Your task to perform on an android device: Go to Android settings Image 0: 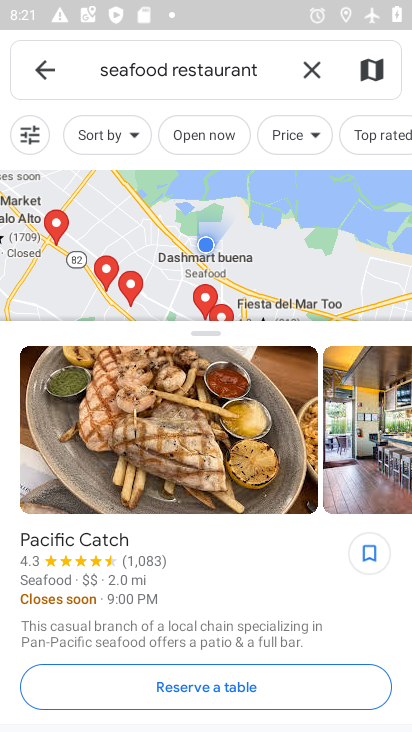
Step 0: press home button
Your task to perform on an android device: Go to Android settings Image 1: 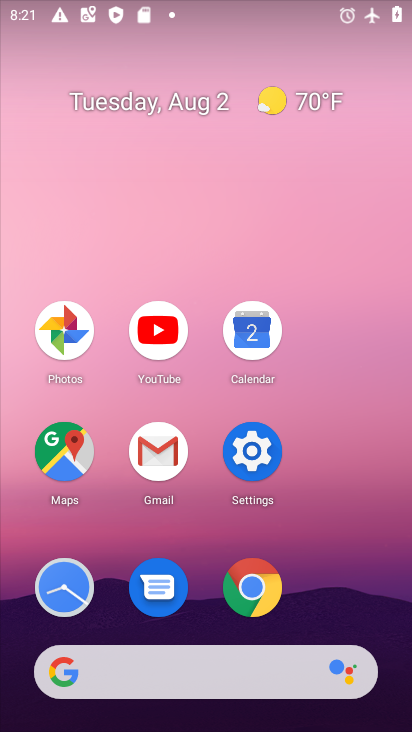
Step 1: click (254, 452)
Your task to perform on an android device: Go to Android settings Image 2: 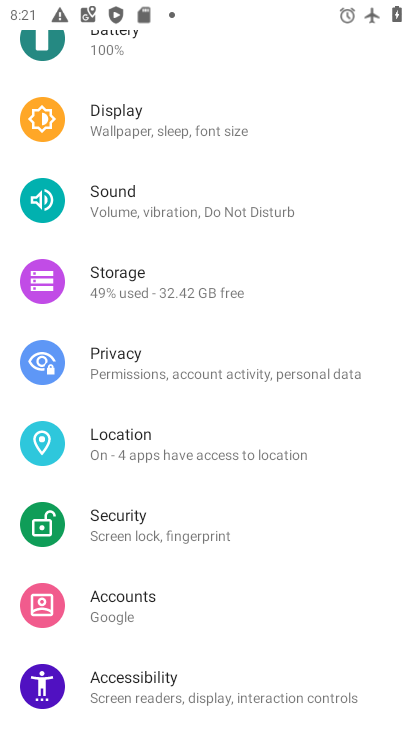
Step 2: drag from (227, 637) to (209, 44)
Your task to perform on an android device: Go to Android settings Image 3: 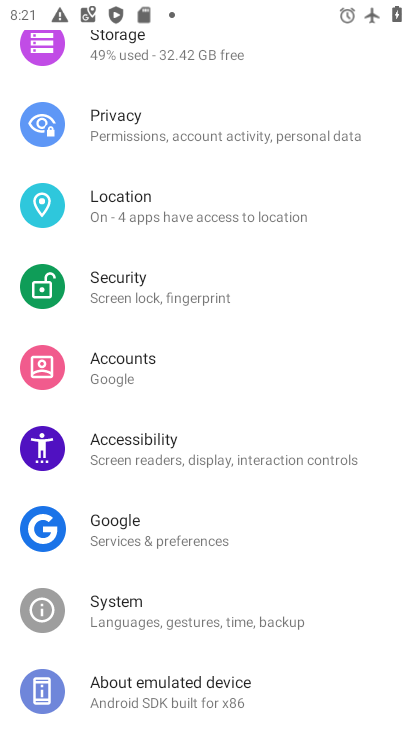
Step 3: drag from (228, 646) to (228, 415)
Your task to perform on an android device: Go to Android settings Image 4: 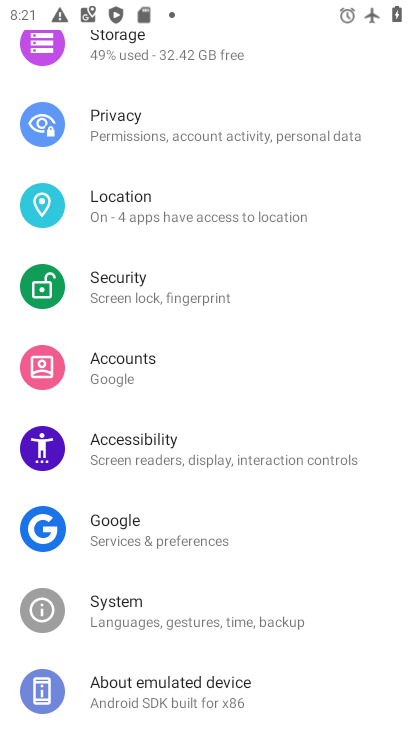
Step 4: click (145, 681)
Your task to perform on an android device: Go to Android settings Image 5: 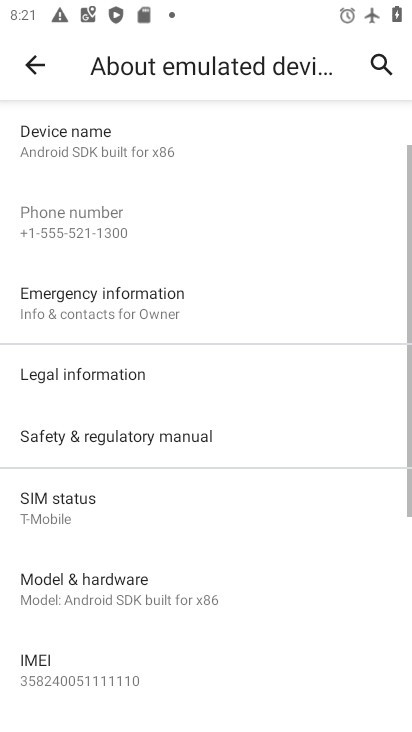
Step 5: drag from (219, 643) to (199, 137)
Your task to perform on an android device: Go to Android settings Image 6: 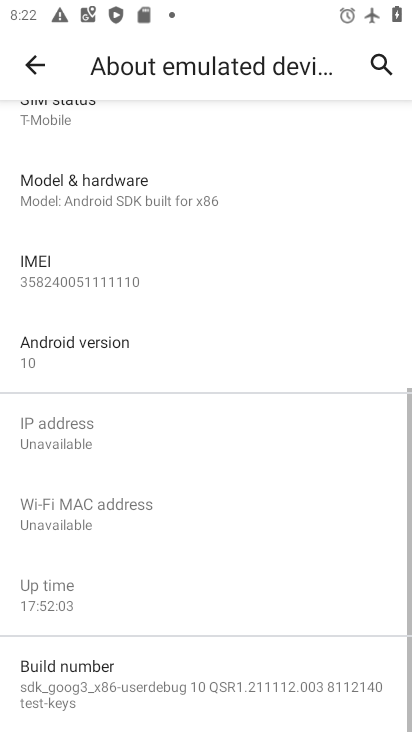
Step 6: click (93, 345)
Your task to perform on an android device: Go to Android settings Image 7: 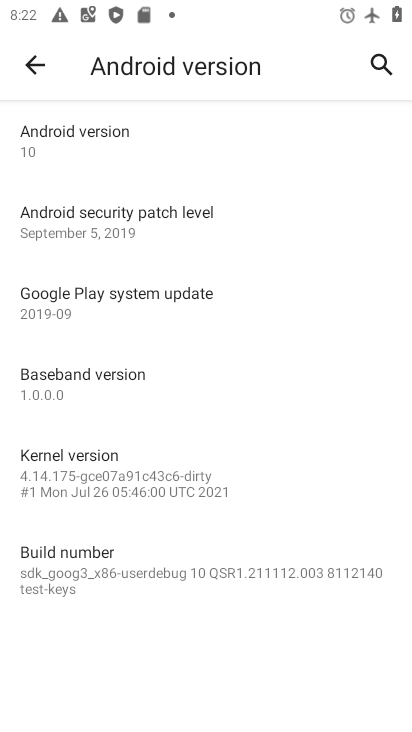
Step 7: task complete